Your task to perform on an android device: Go to display settings Image 0: 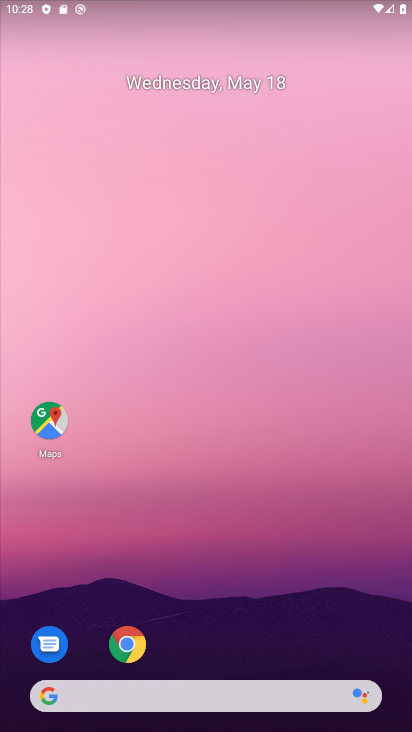
Step 0: drag from (352, 628) to (255, 30)
Your task to perform on an android device: Go to display settings Image 1: 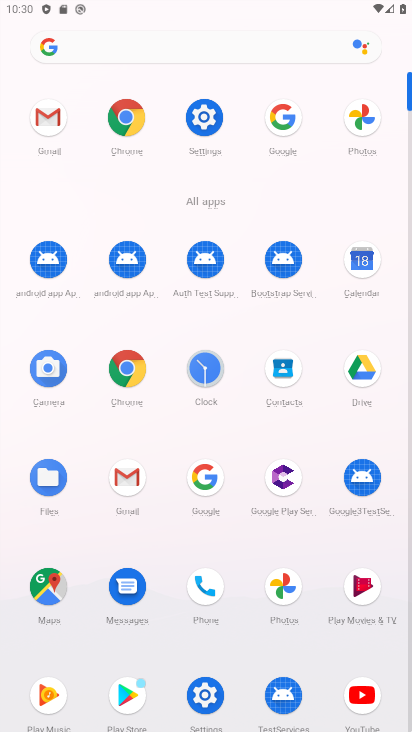
Step 1: click (193, 701)
Your task to perform on an android device: Go to display settings Image 2: 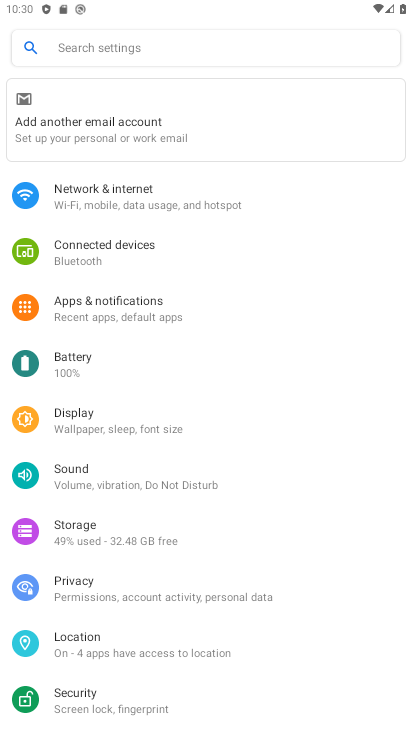
Step 2: click (78, 423)
Your task to perform on an android device: Go to display settings Image 3: 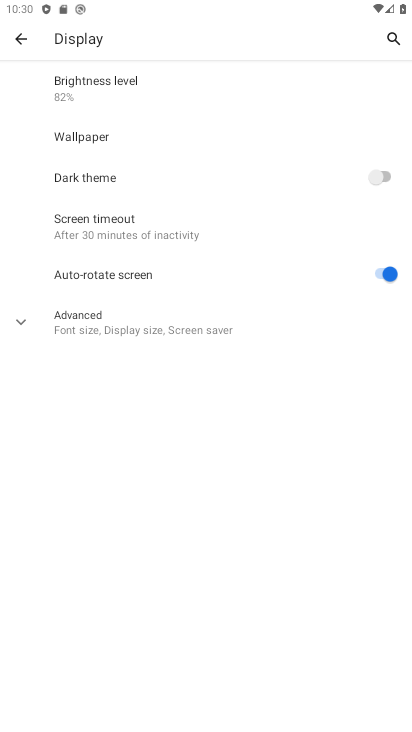
Step 3: task complete